Your task to perform on an android device: turn on translation in the chrome app Image 0: 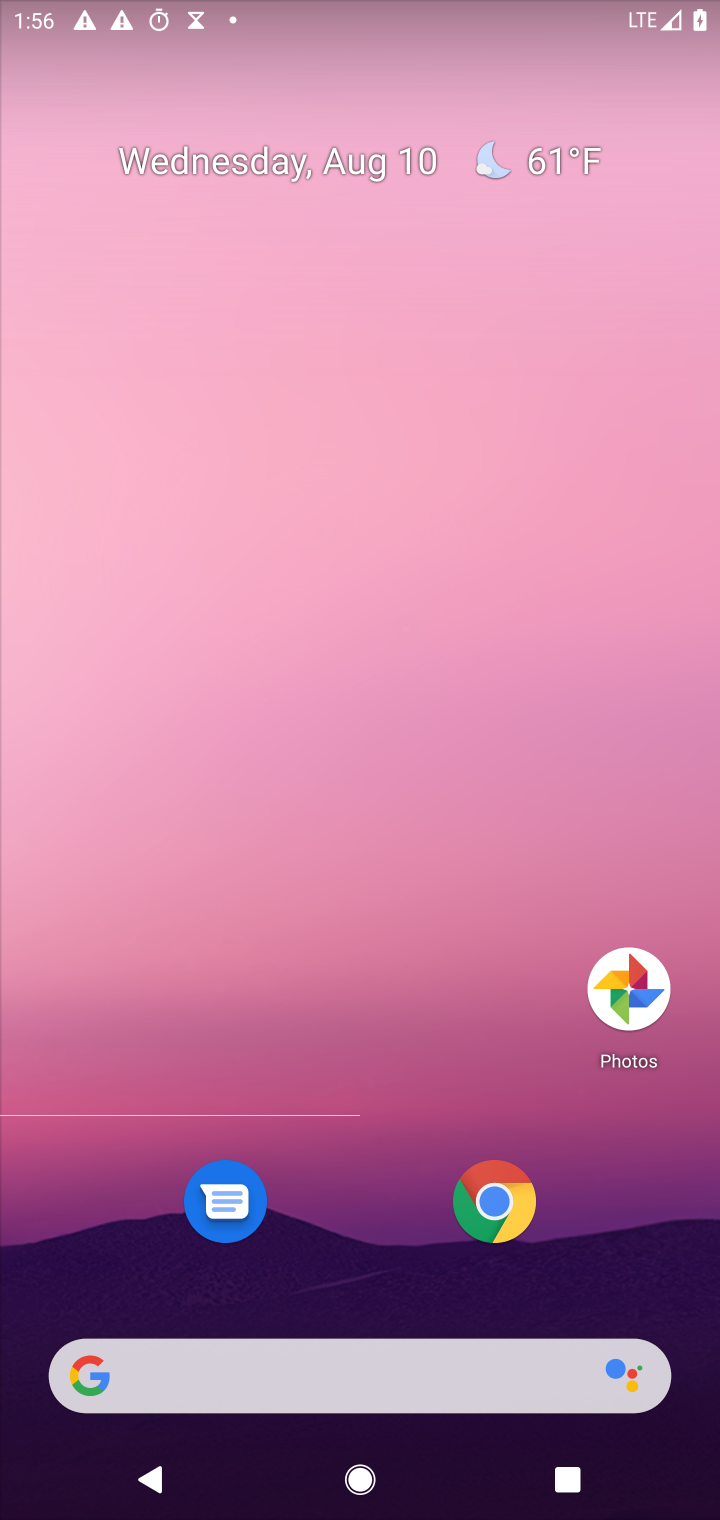
Step 0: press home button
Your task to perform on an android device: turn on translation in the chrome app Image 1: 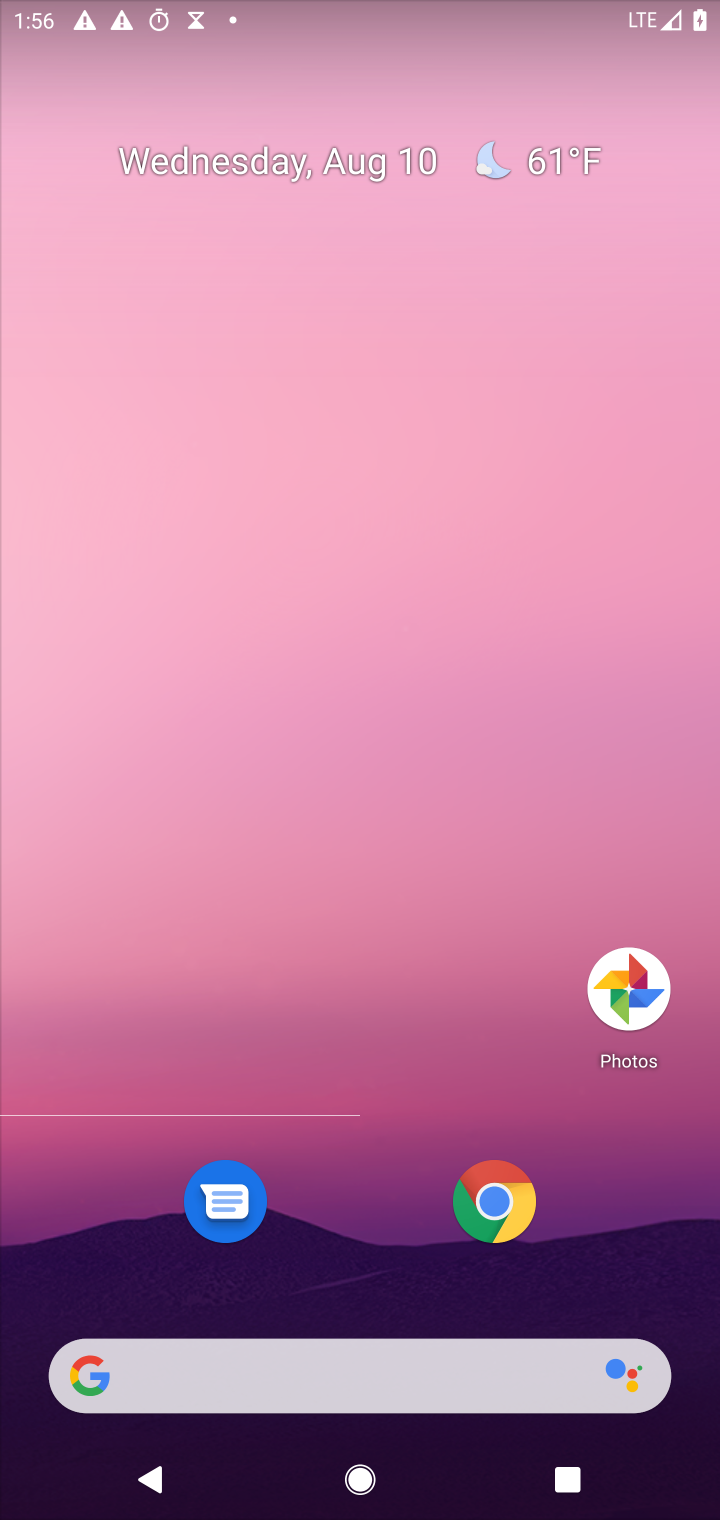
Step 1: click (501, 1198)
Your task to perform on an android device: turn on translation in the chrome app Image 2: 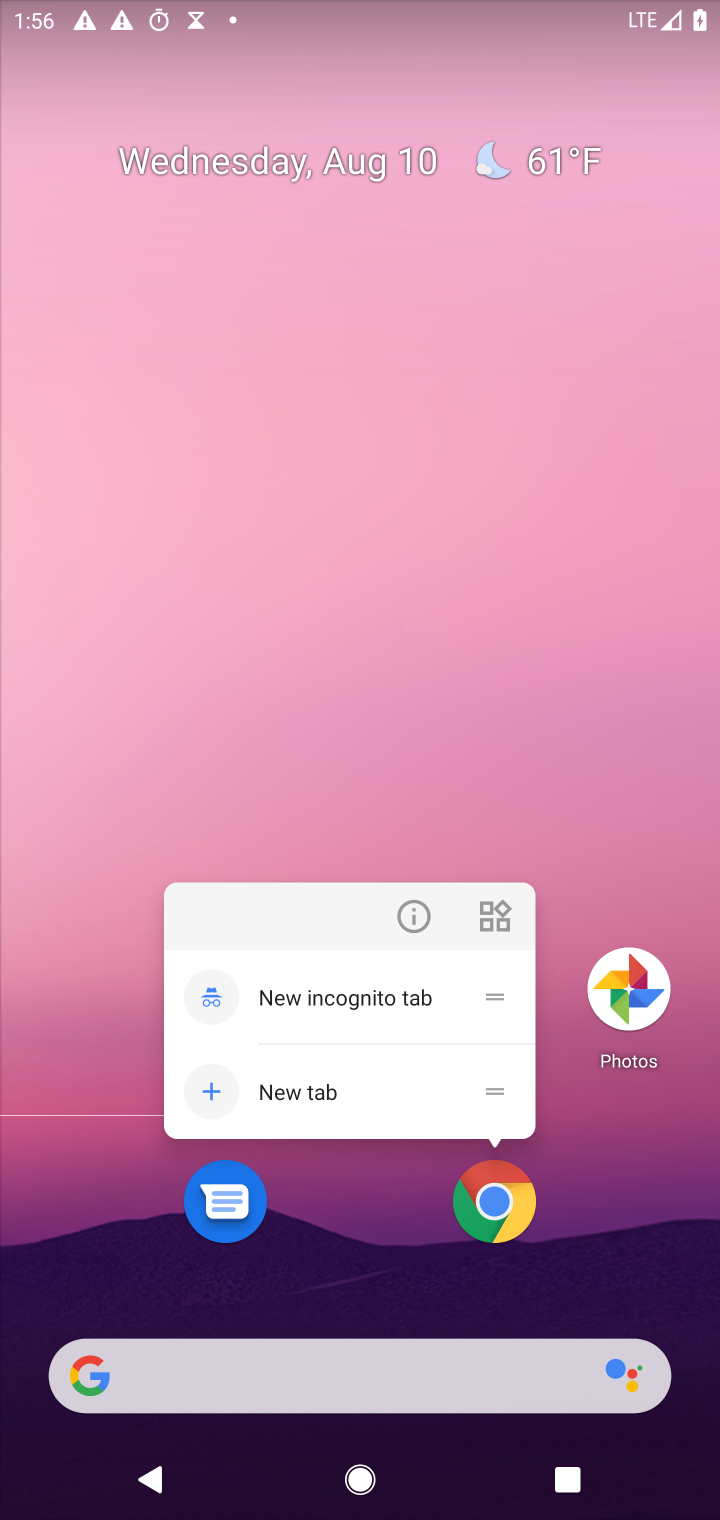
Step 2: click (501, 1198)
Your task to perform on an android device: turn on translation in the chrome app Image 3: 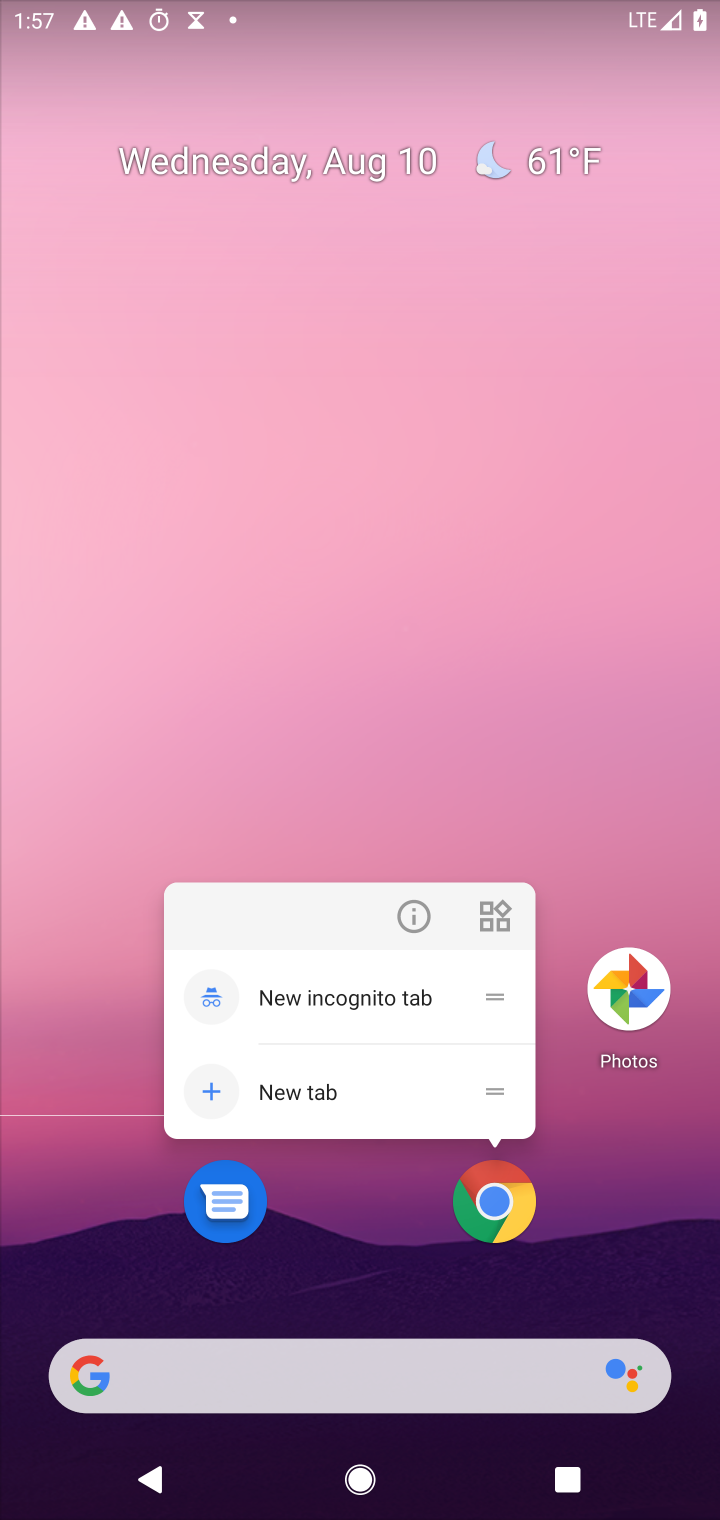
Step 3: click (501, 1198)
Your task to perform on an android device: turn on translation in the chrome app Image 4: 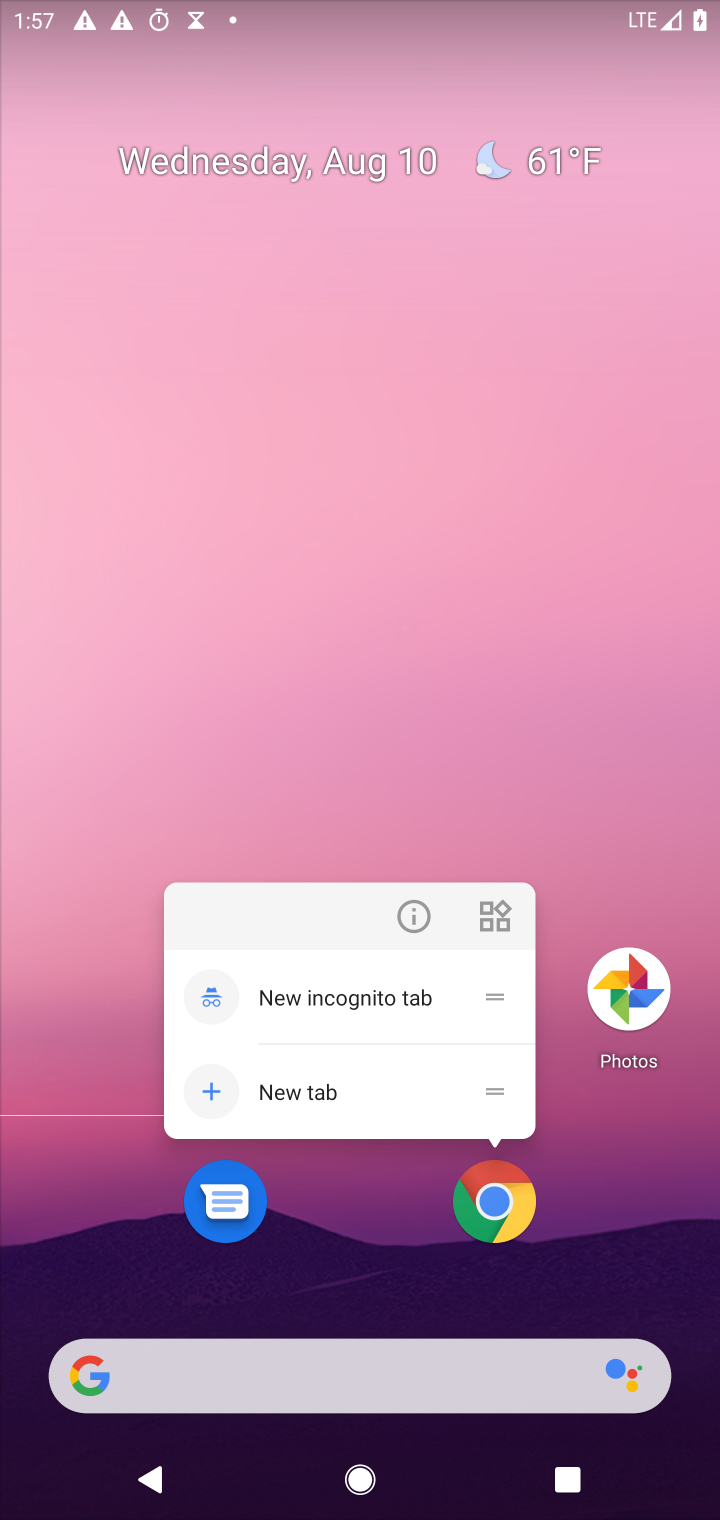
Step 4: click (501, 1198)
Your task to perform on an android device: turn on translation in the chrome app Image 5: 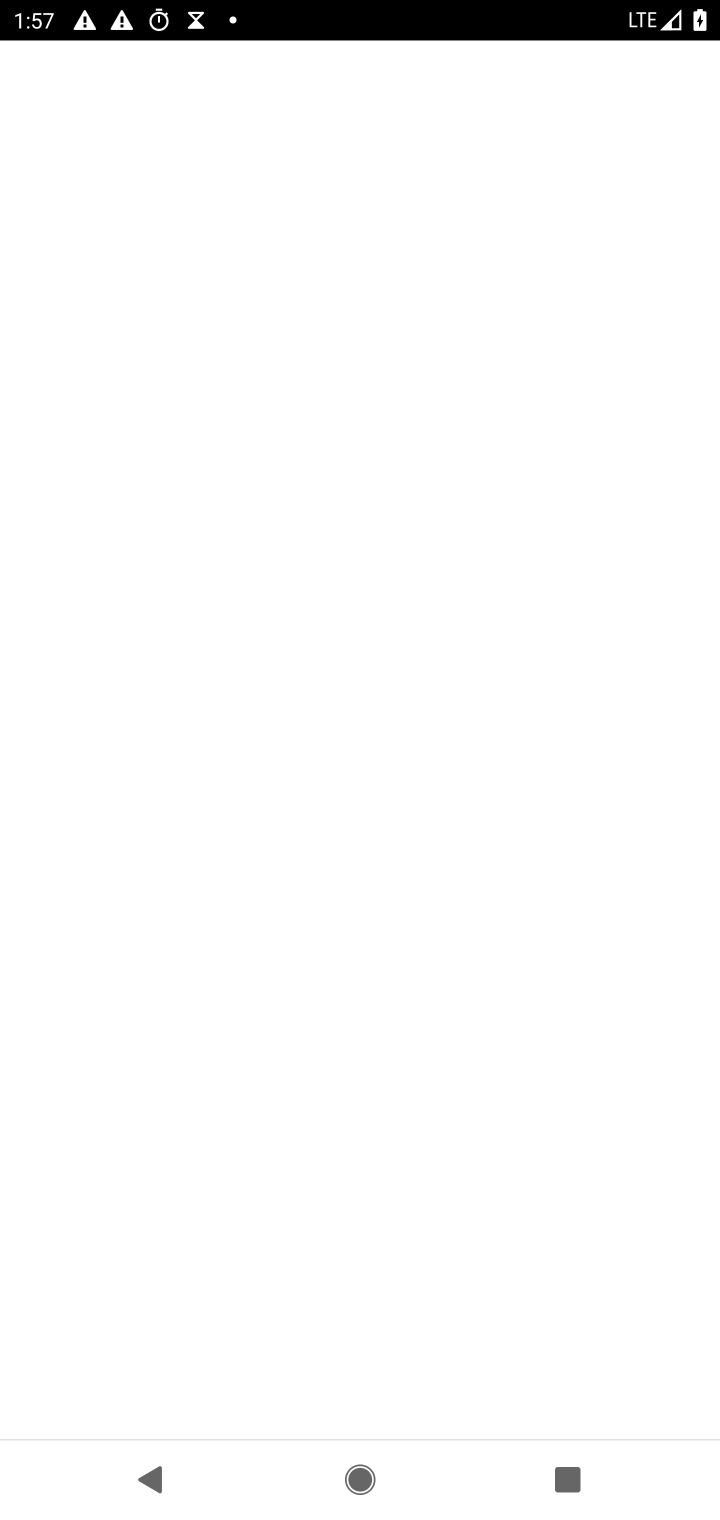
Step 5: click (501, 1198)
Your task to perform on an android device: turn on translation in the chrome app Image 6: 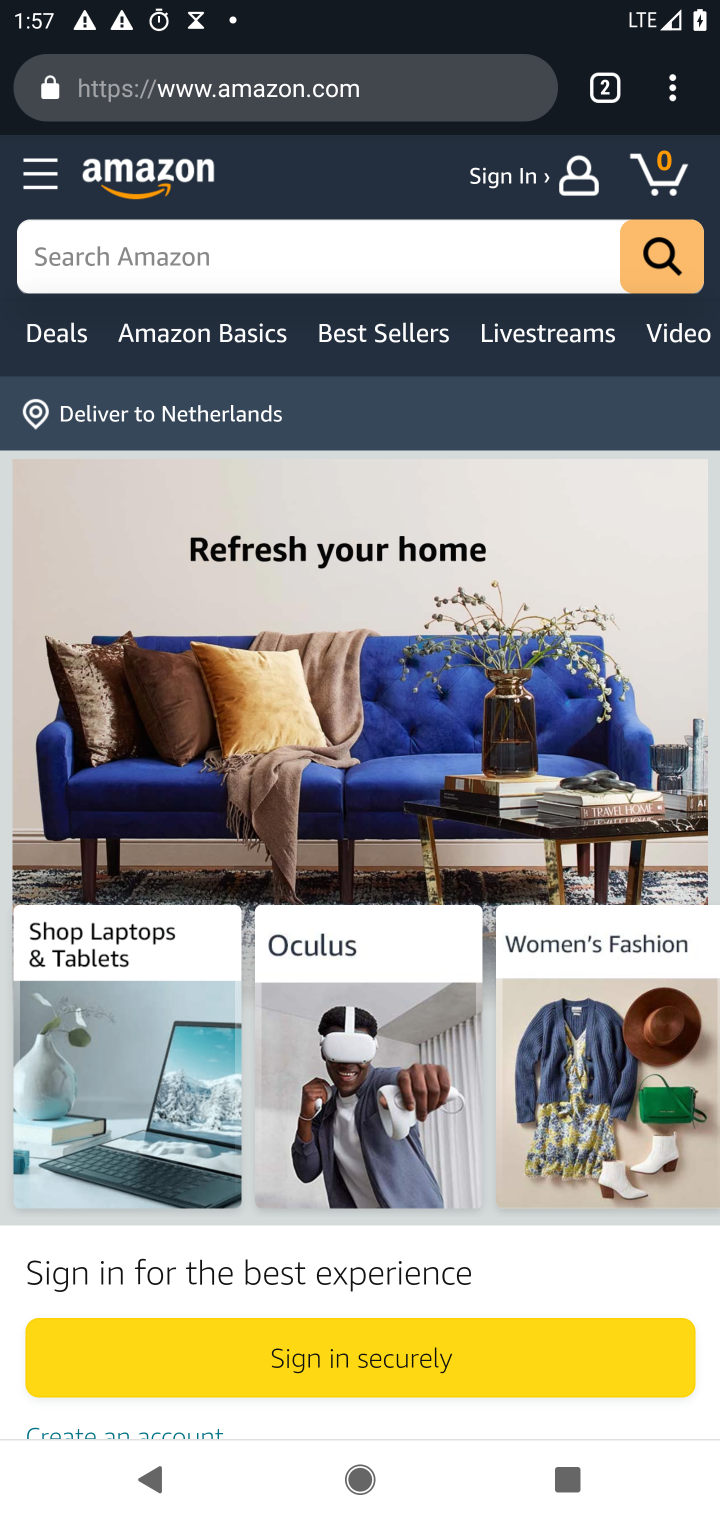
Step 6: drag from (682, 78) to (376, 1062)
Your task to perform on an android device: turn on translation in the chrome app Image 7: 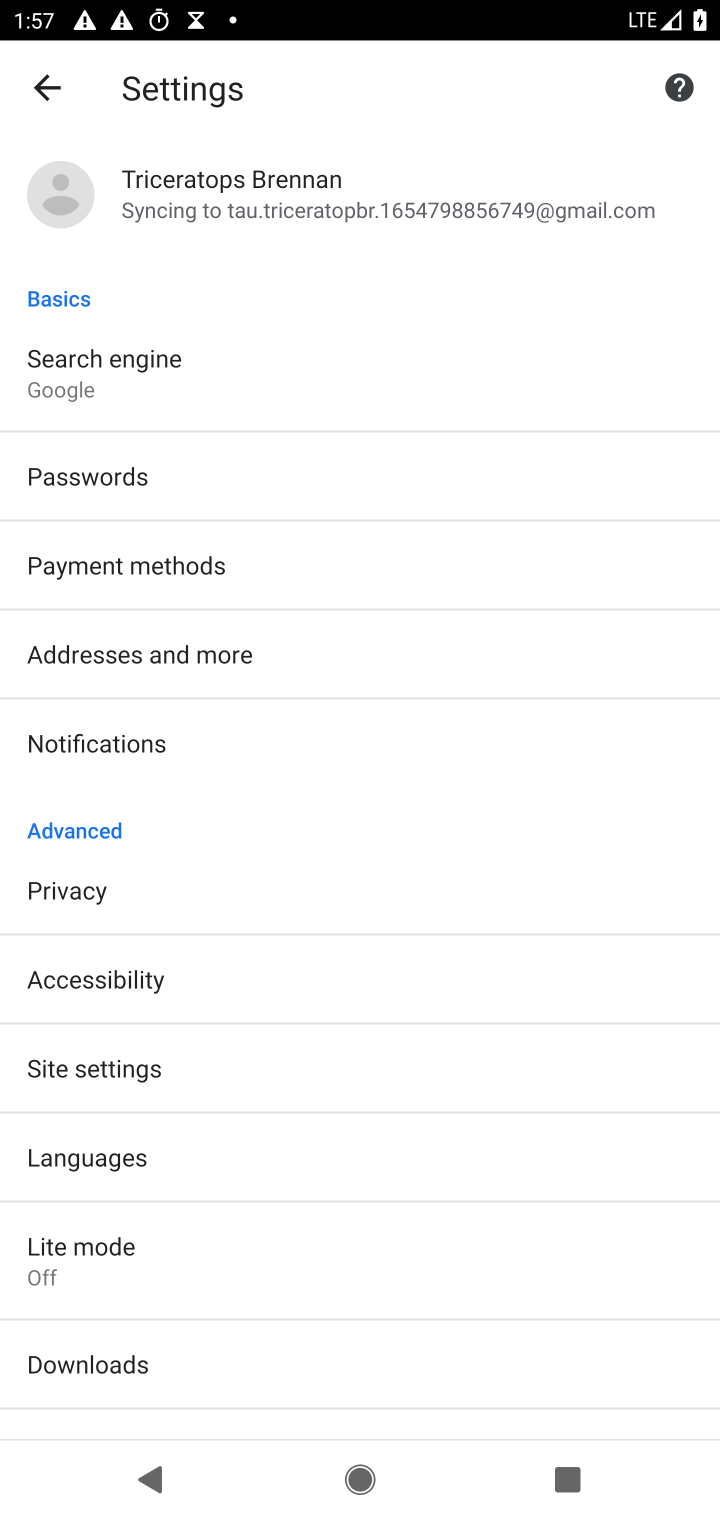
Step 7: click (73, 1169)
Your task to perform on an android device: turn on translation in the chrome app Image 8: 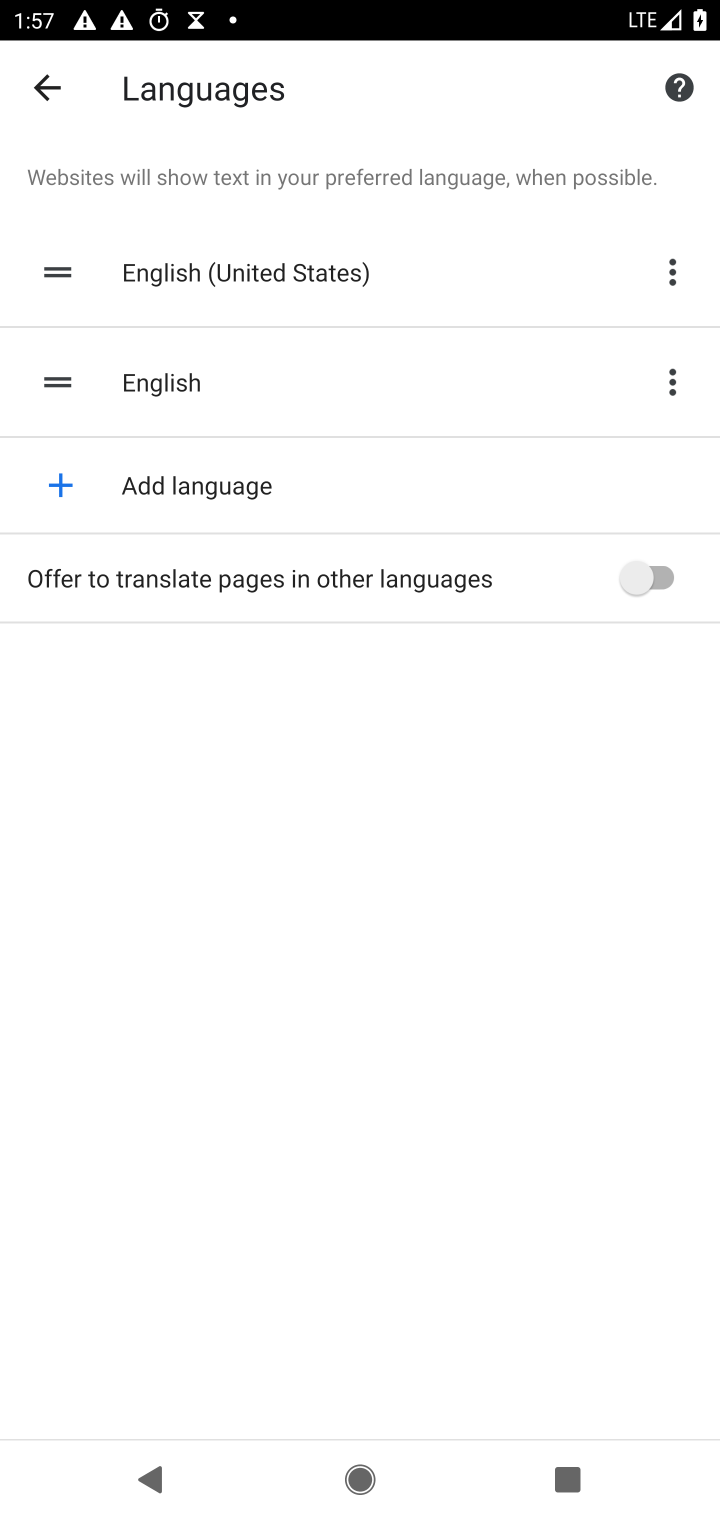
Step 8: click (640, 590)
Your task to perform on an android device: turn on translation in the chrome app Image 9: 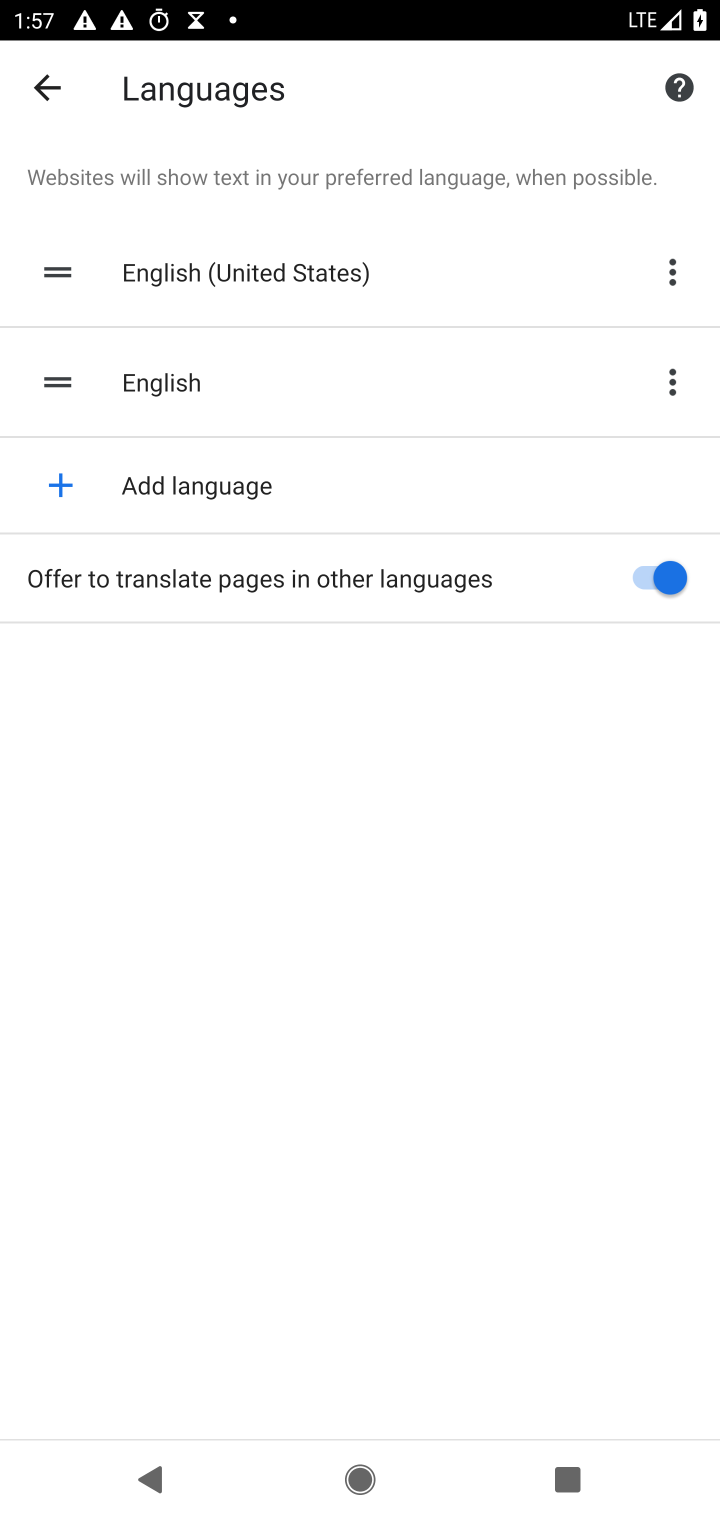
Step 9: task complete